Your task to perform on an android device: Show me some nice wallpapers for my phone Image 0: 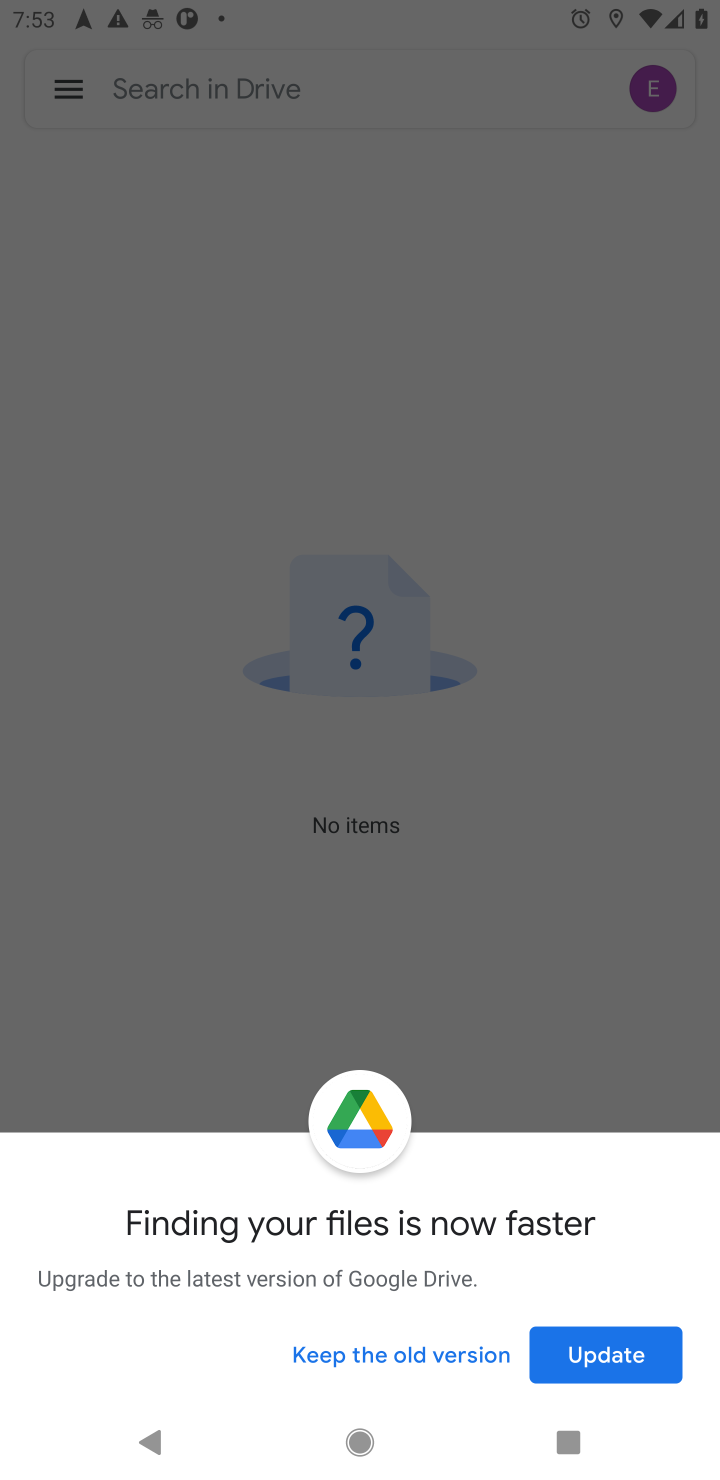
Step 0: press home button
Your task to perform on an android device: Show me some nice wallpapers for my phone Image 1: 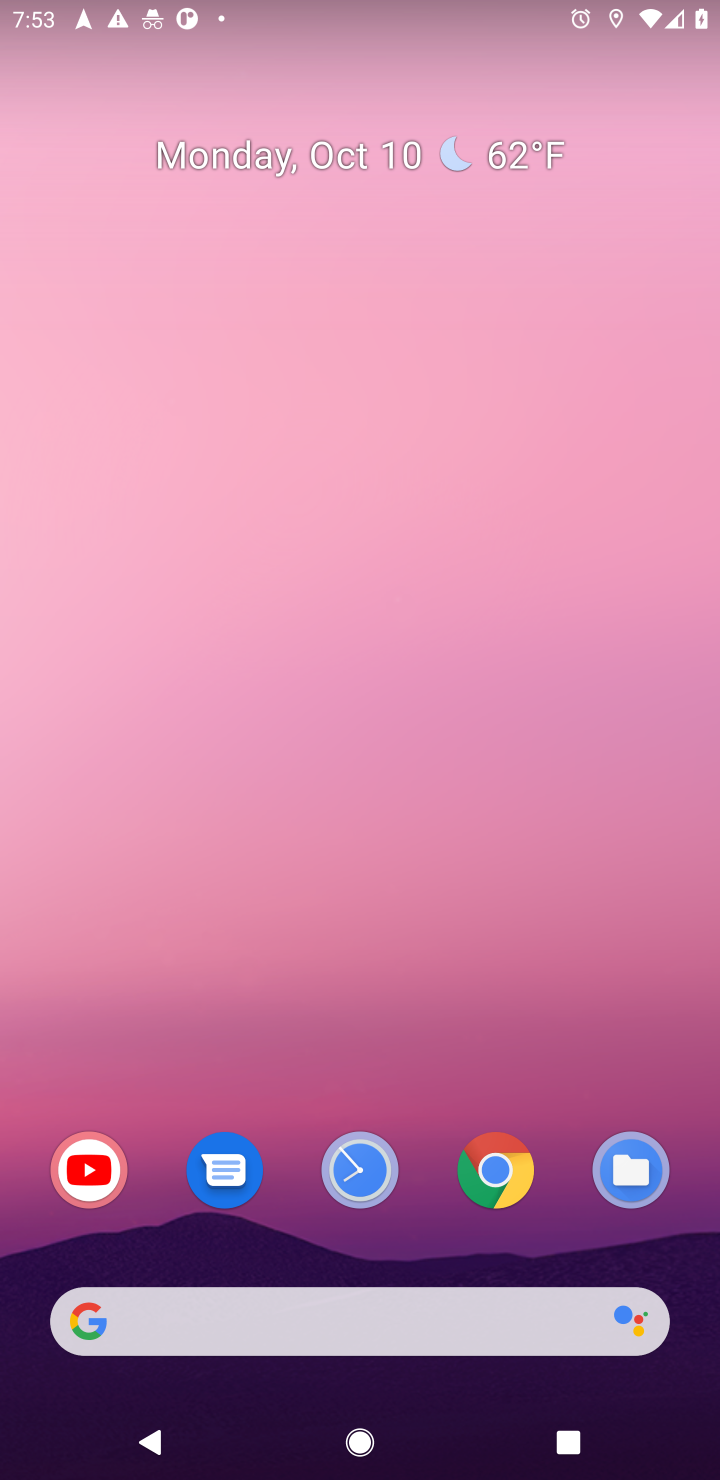
Step 1: click (526, 1168)
Your task to perform on an android device: Show me some nice wallpapers for my phone Image 2: 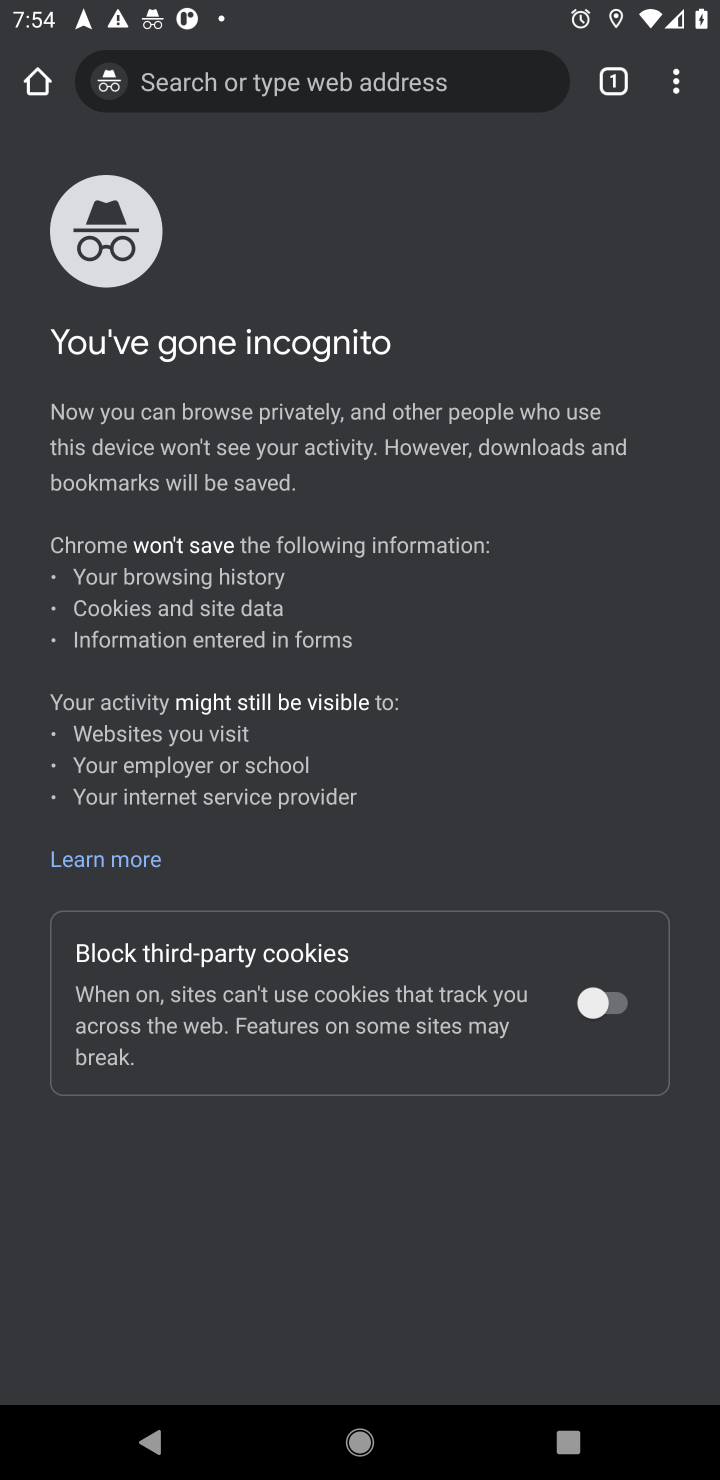
Step 2: click (256, 72)
Your task to perform on an android device: Show me some nice wallpapers for my phone Image 3: 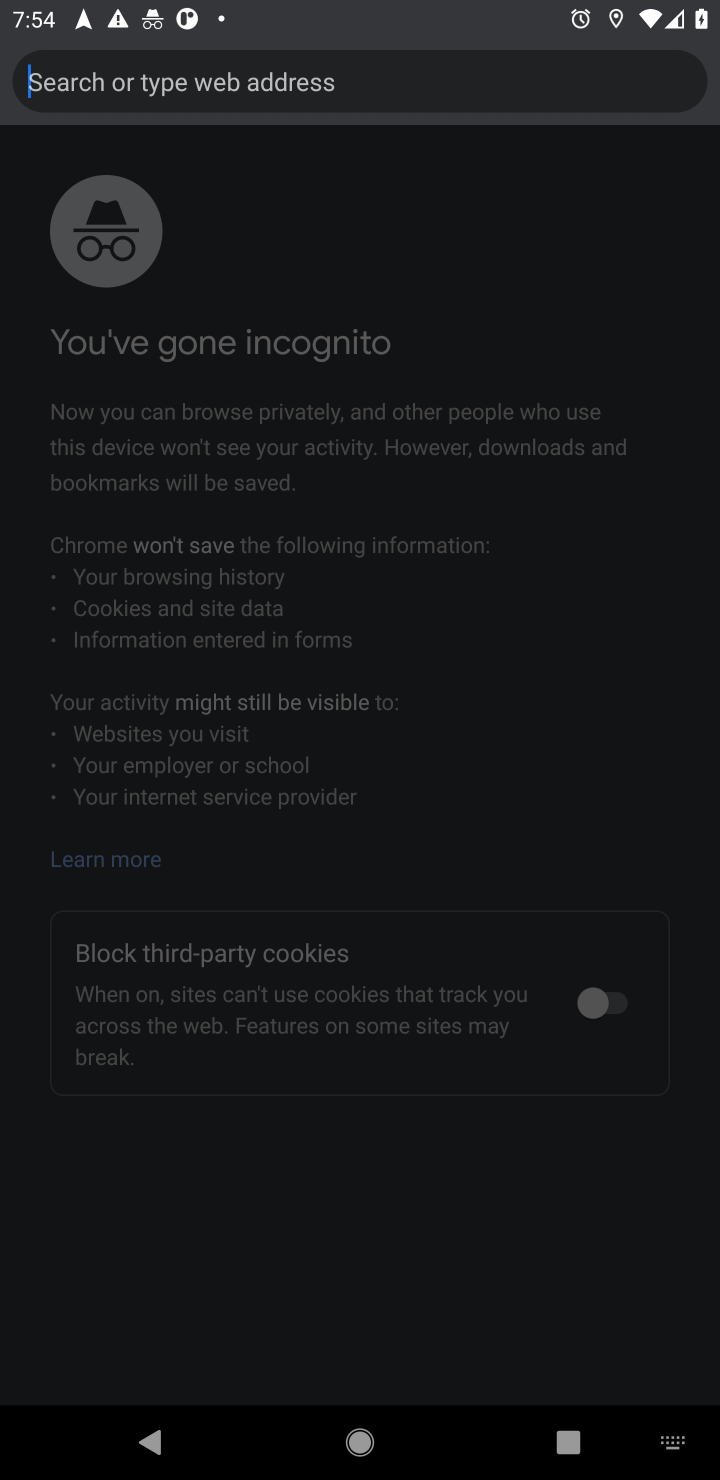
Step 3: type "some nice wallpapers for my phone"
Your task to perform on an android device: Show me some nice wallpapers for my phone Image 4: 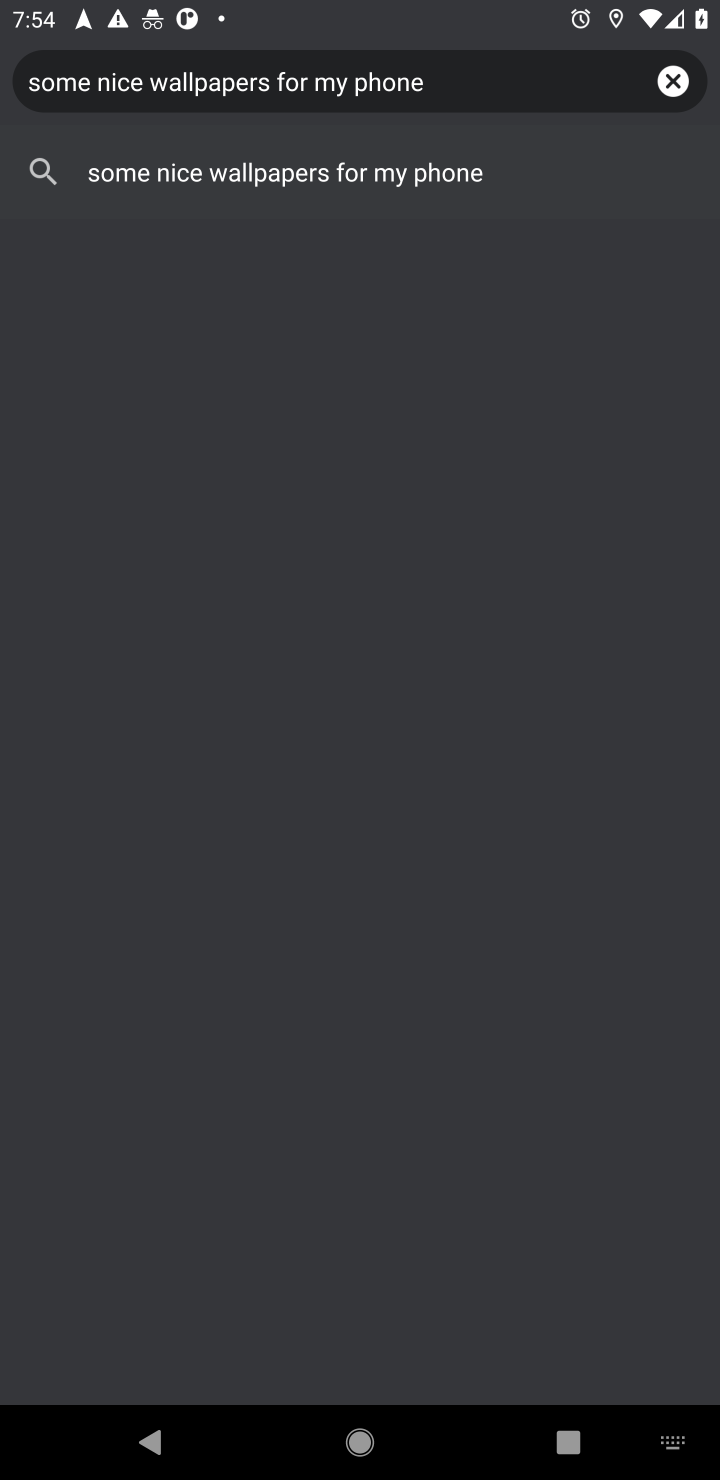
Step 4: click (523, 177)
Your task to perform on an android device: Show me some nice wallpapers for my phone Image 5: 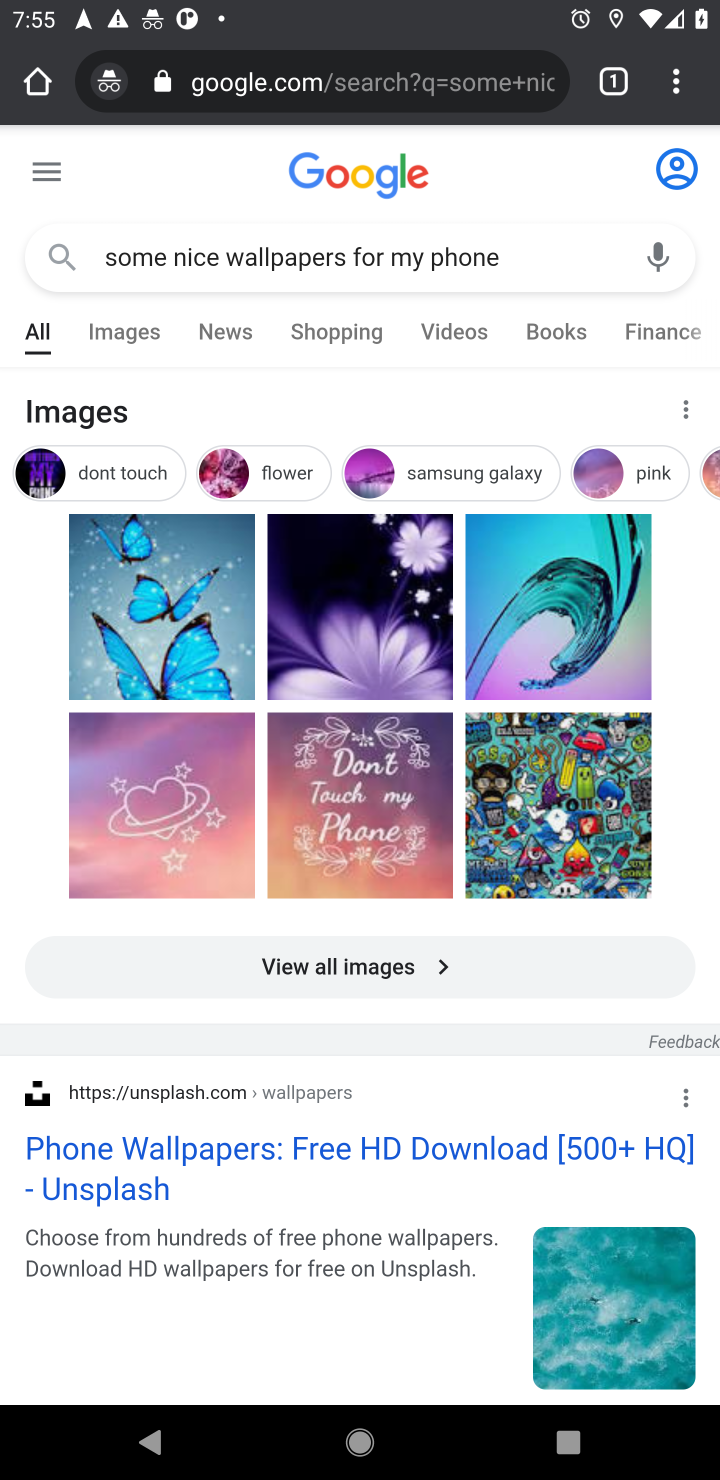
Step 5: click (561, 765)
Your task to perform on an android device: Show me some nice wallpapers for my phone Image 6: 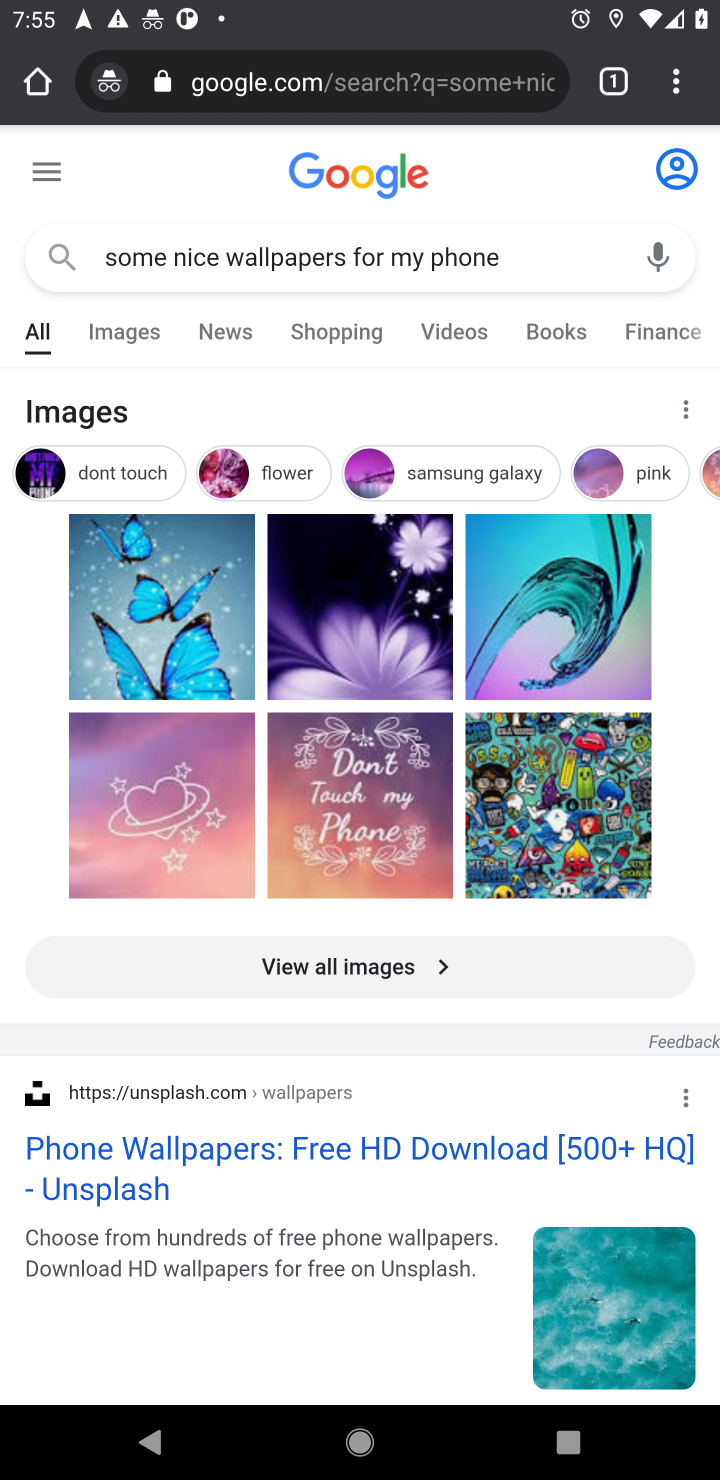
Step 6: task complete